Your task to perform on an android device: Open Google Chrome Image 0: 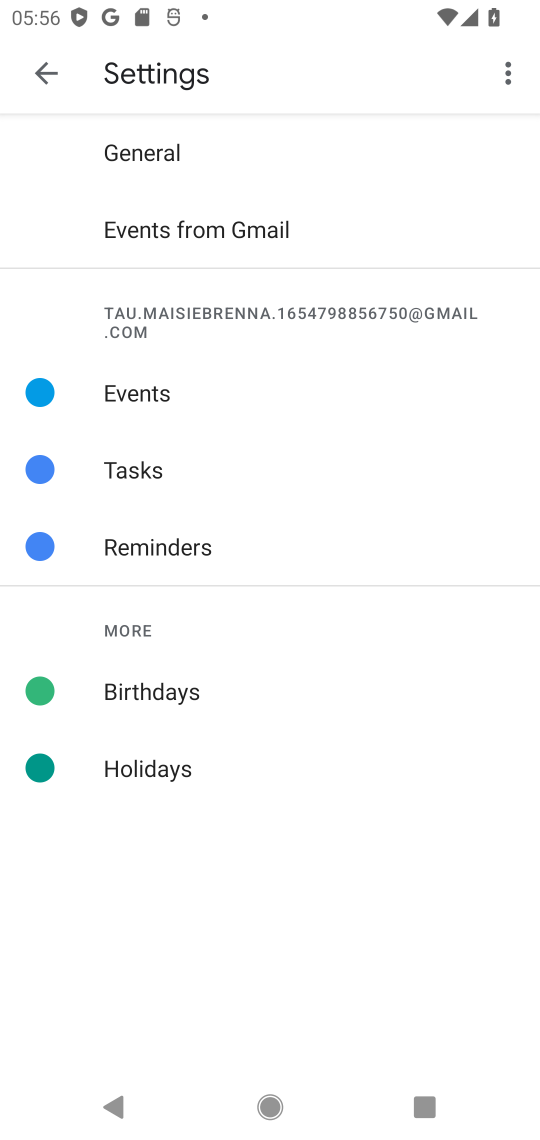
Step 0: press home button
Your task to perform on an android device: Open Google Chrome Image 1: 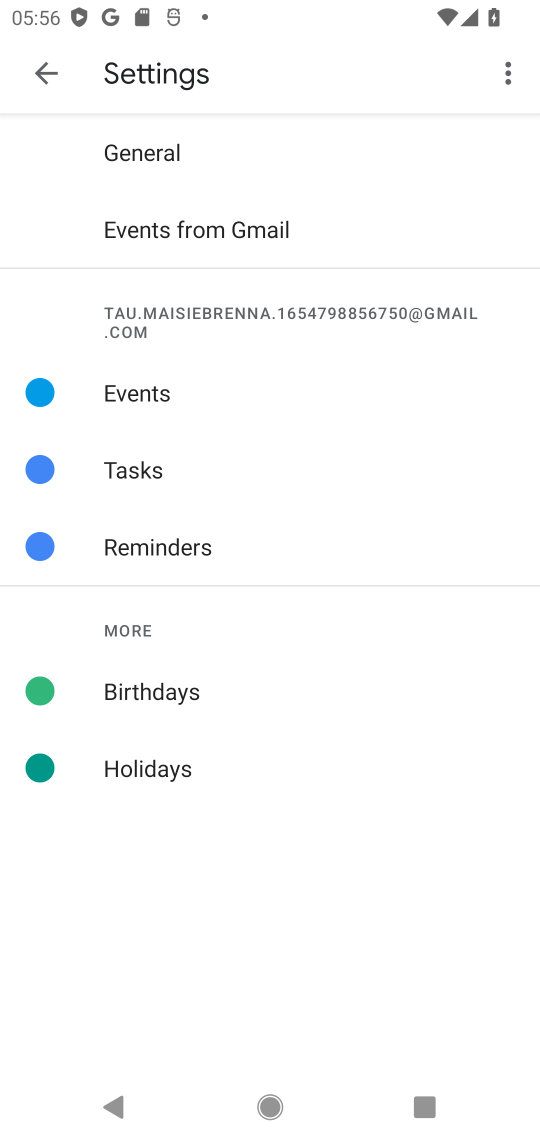
Step 1: press home button
Your task to perform on an android device: Open Google Chrome Image 2: 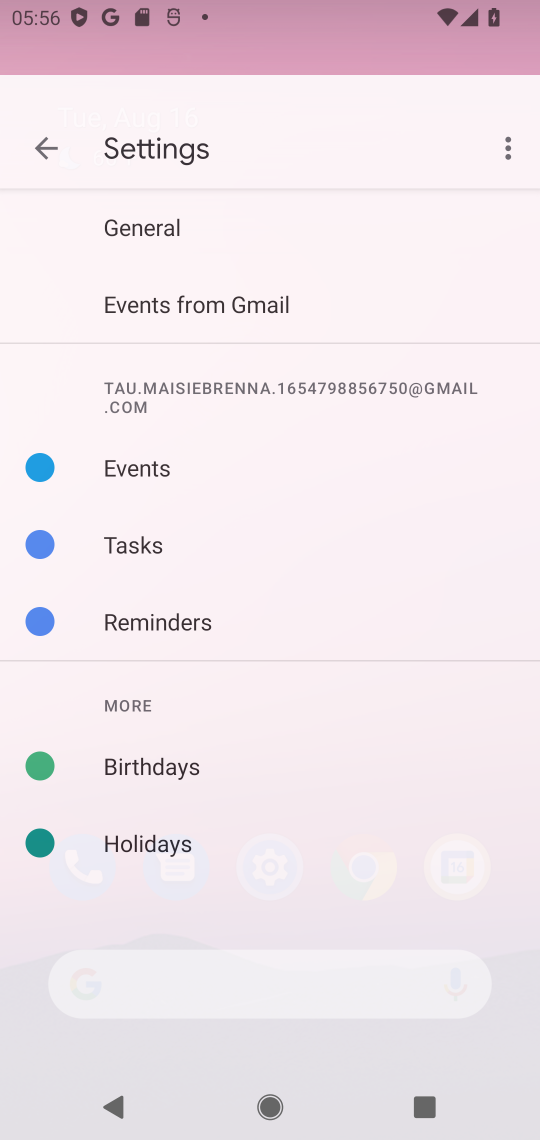
Step 2: press home button
Your task to perform on an android device: Open Google Chrome Image 3: 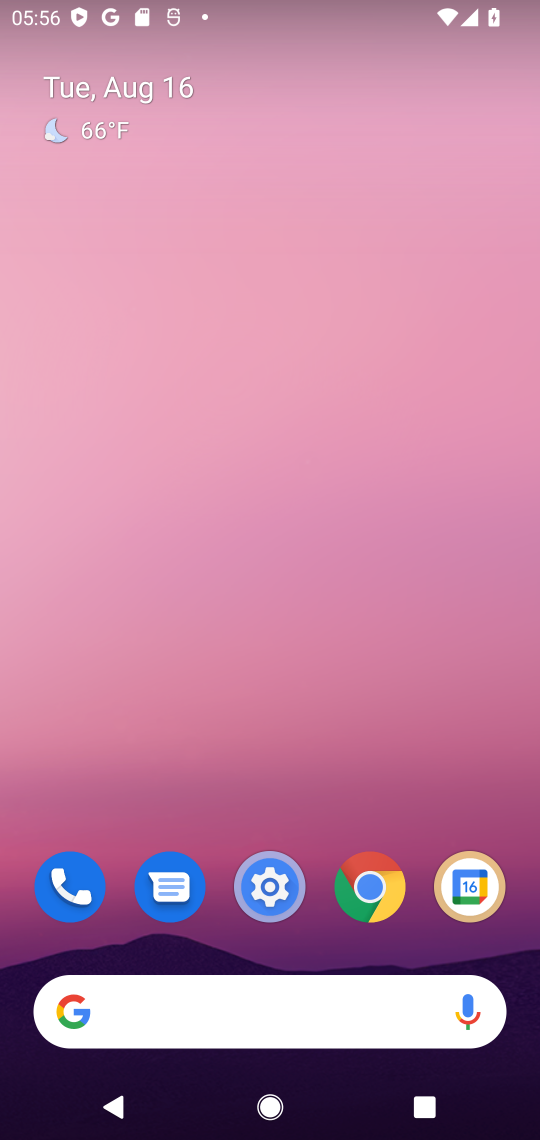
Step 3: press home button
Your task to perform on an android device: Open Google Chrome Image 4: 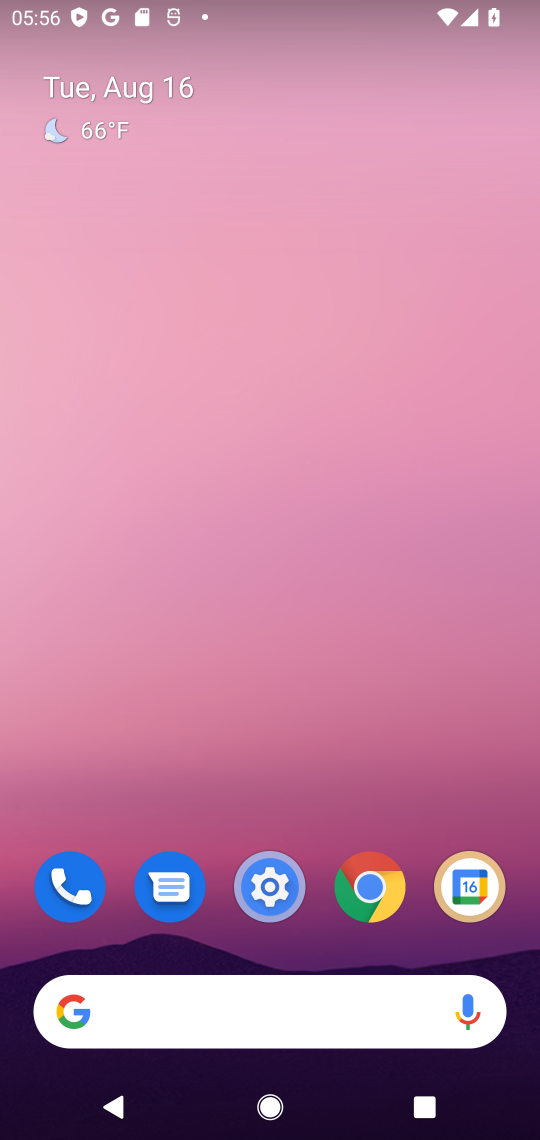
Step 4: press home button
Your task to perform on an android device: Open Google Chrome Image 5: 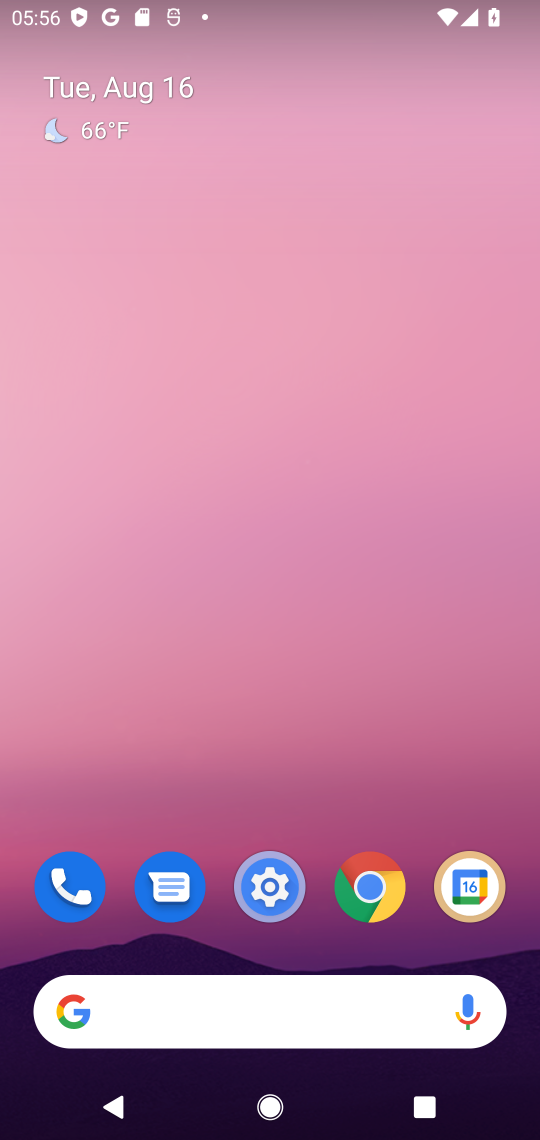
Step 5: drag from (390, 792) to (370, 138)
Your task to perform on an android device: Open Google Chrome Image 6: 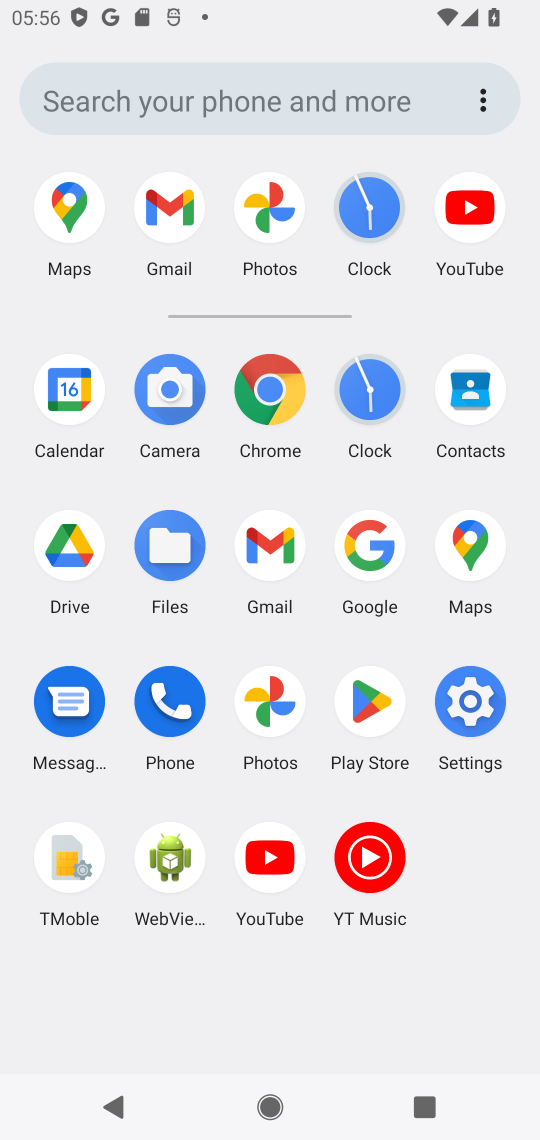
Step 6: click (275, 379)
Your task to perform on an android device: Open Google Chrome Image 7: 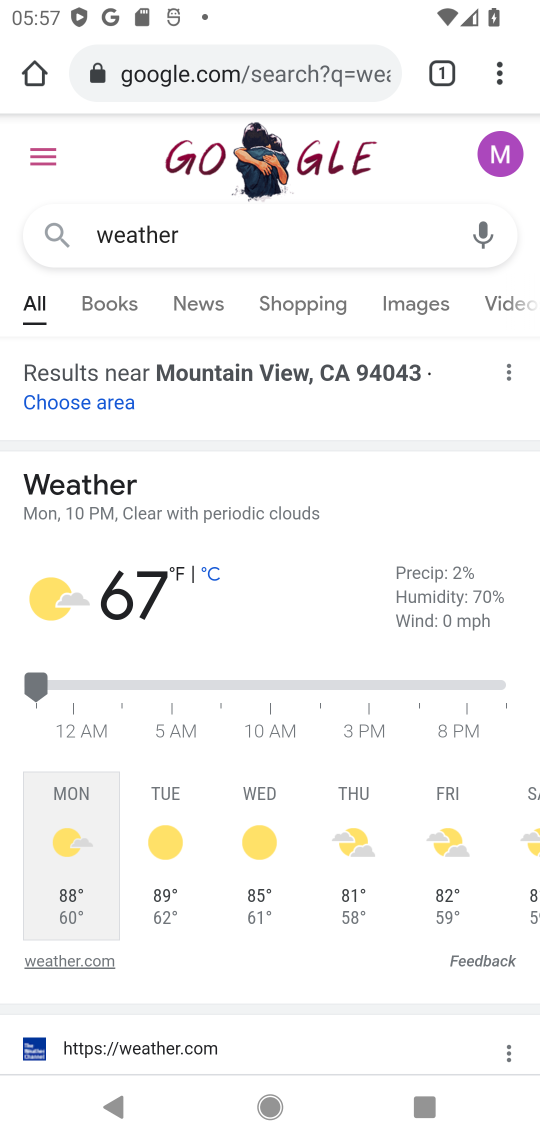
Step 7: task complete